Your task to perform on an android device: Open Amazon Image 0: 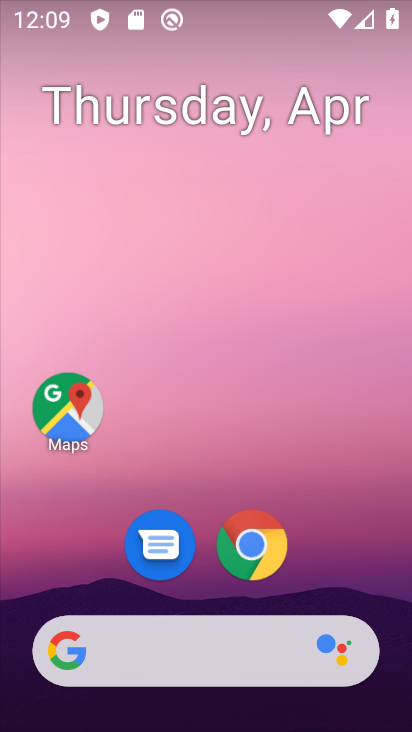
Step 0: drag from (317, 529) to (397, 29)
Your task to perform on an android device: Open Amazon Image 1: 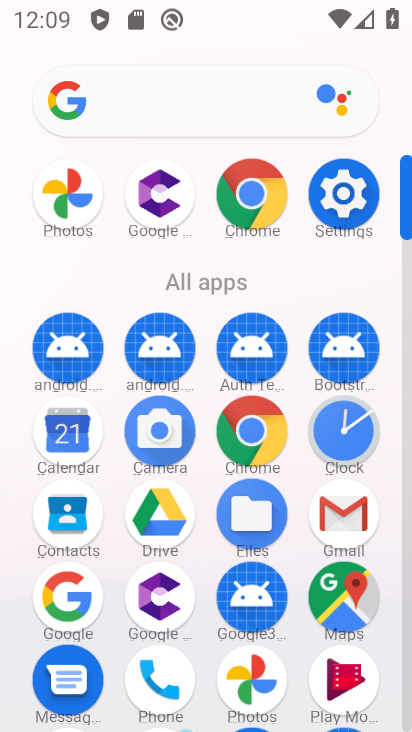
Step 1: click (248, 185)
Your task to perform on an android device: Open Amazon Image 2: 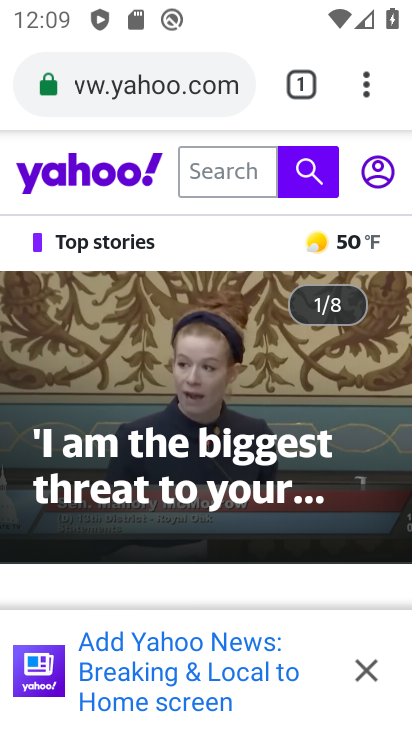
Step 2: click (202, 100)
Your task to perform on an android device: Open Amazon Image 3: 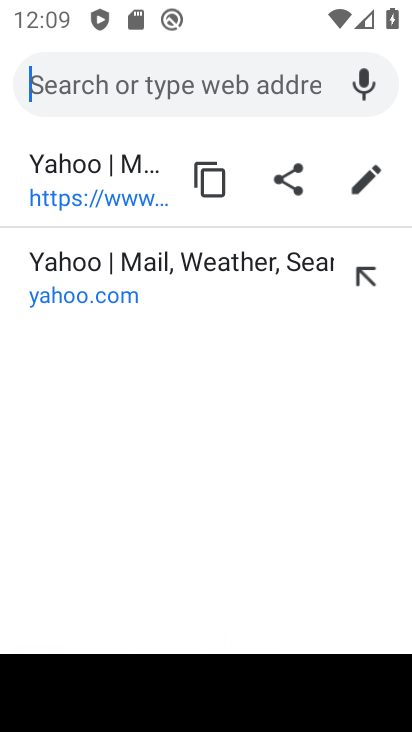
Step 3: type "amazone"
Your task to perform on an android device: Open Amazon Image 4: 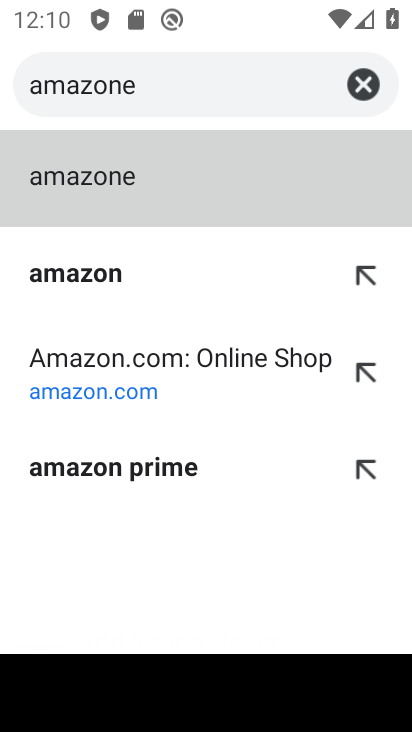
Step 4: press enter
Your task to perform on an android device: Open Amazon Image 5: 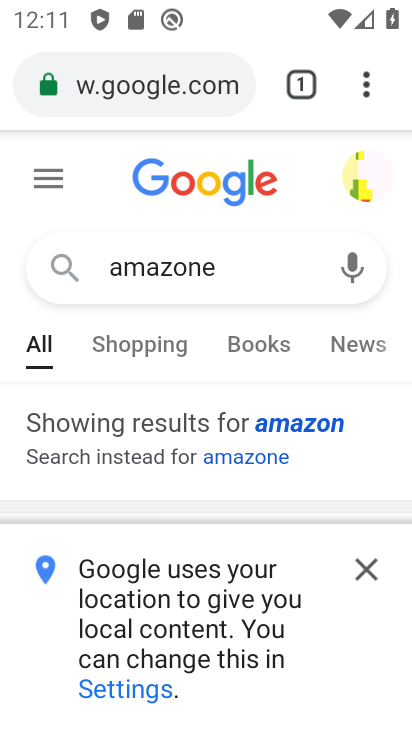
Step 5: drag from (160, 455) to (168, 63)
Your task to perform on an android device: Open Amazon Image 6: 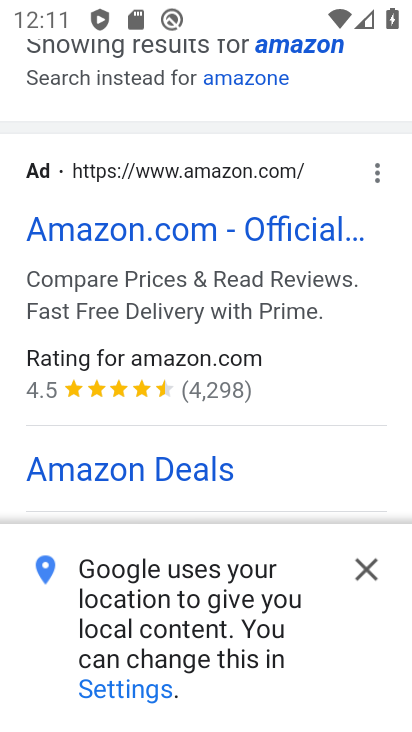
Step 6: click (132, 235)
Your task to perform on an android device: Open Amazon Image 7: 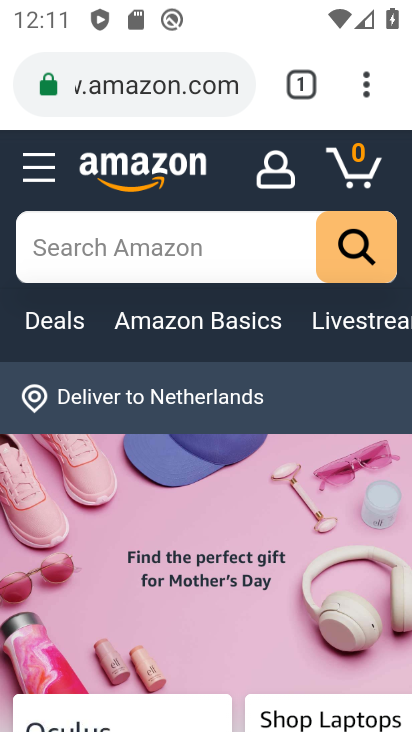
Step 7: task complete